Your task to perform on an android device: open app "Walmart Shopping & Grocery" (install if not already installed) Image 0: 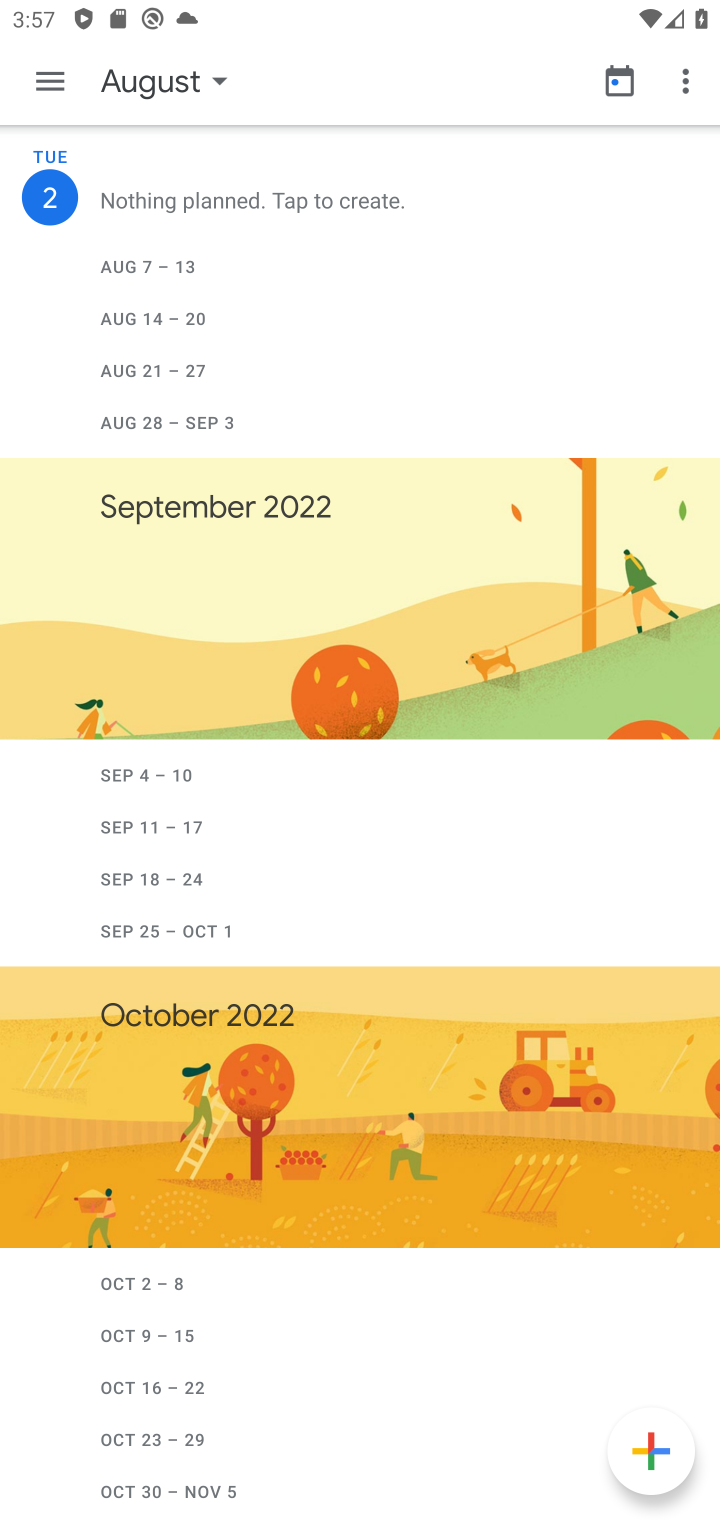
Step 0: press home button
Your task to perform on an android device: open app "Walmart Shopping & Grocery" (install if not already installed) Image 1: 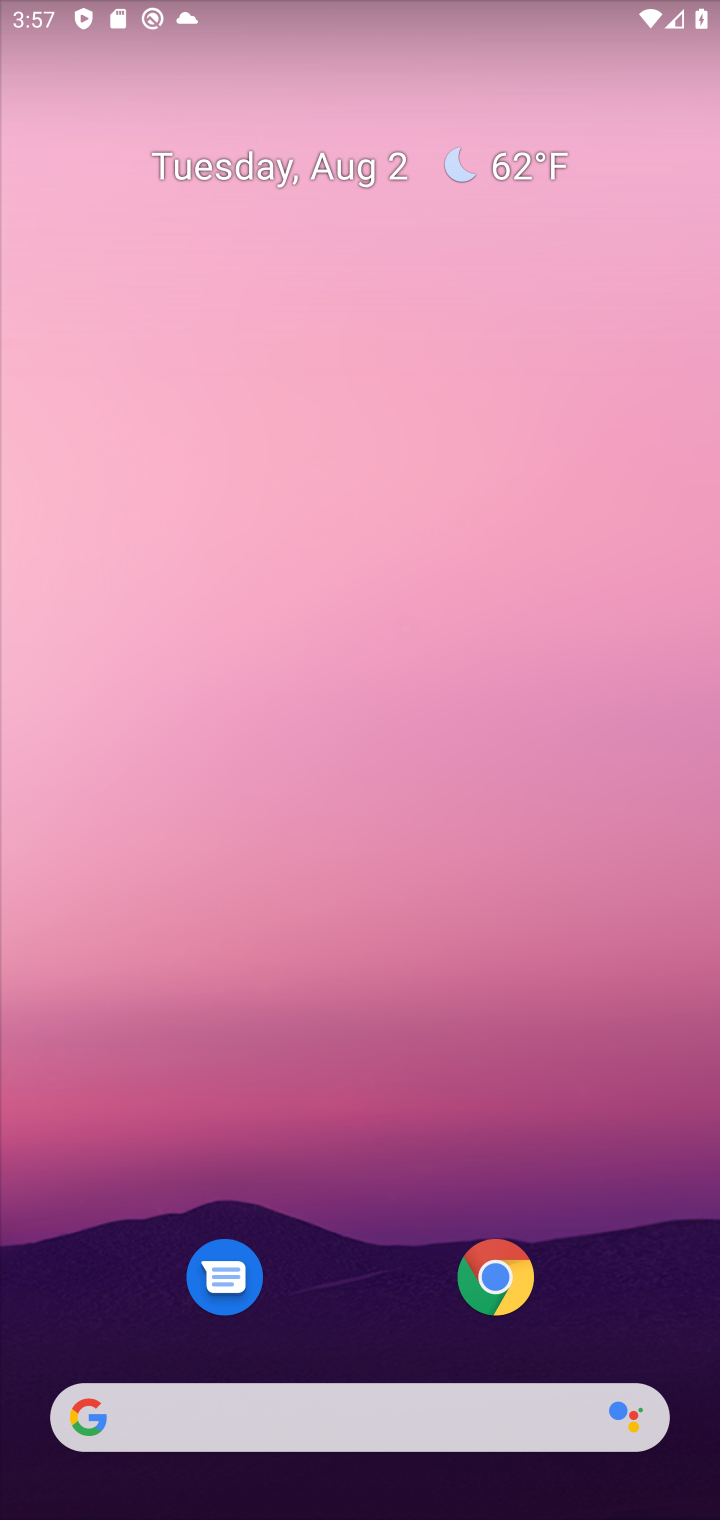
Step 1: drag from (508, 926) to (537, 72)
Your task to perform on an android device: open app "Walmart Shopping & Grocery" (install if not already installed) Image 2: 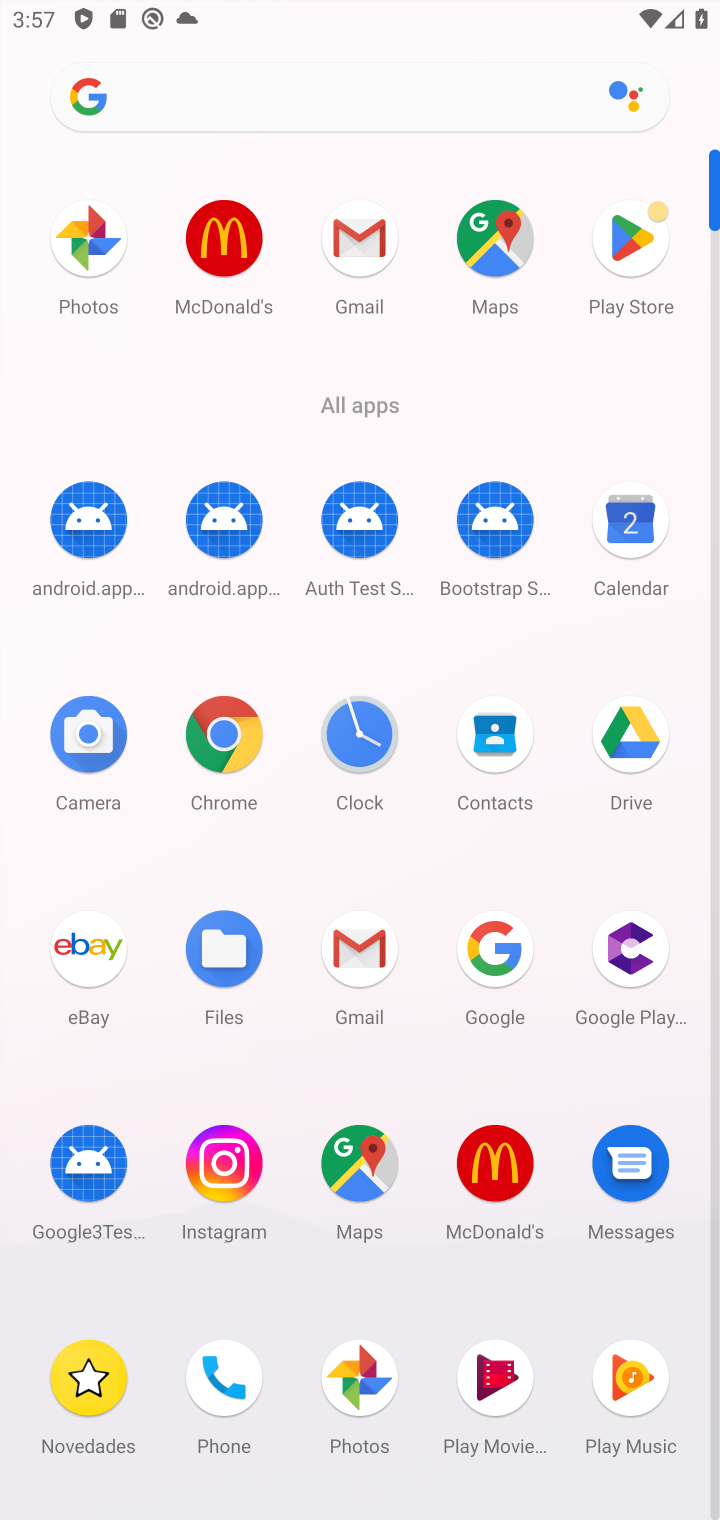
Step 2: click (631, 220)
Your task to perform on an android device: open app "Walmart Shopping & Grocery" (install if not already installed) Image 3: 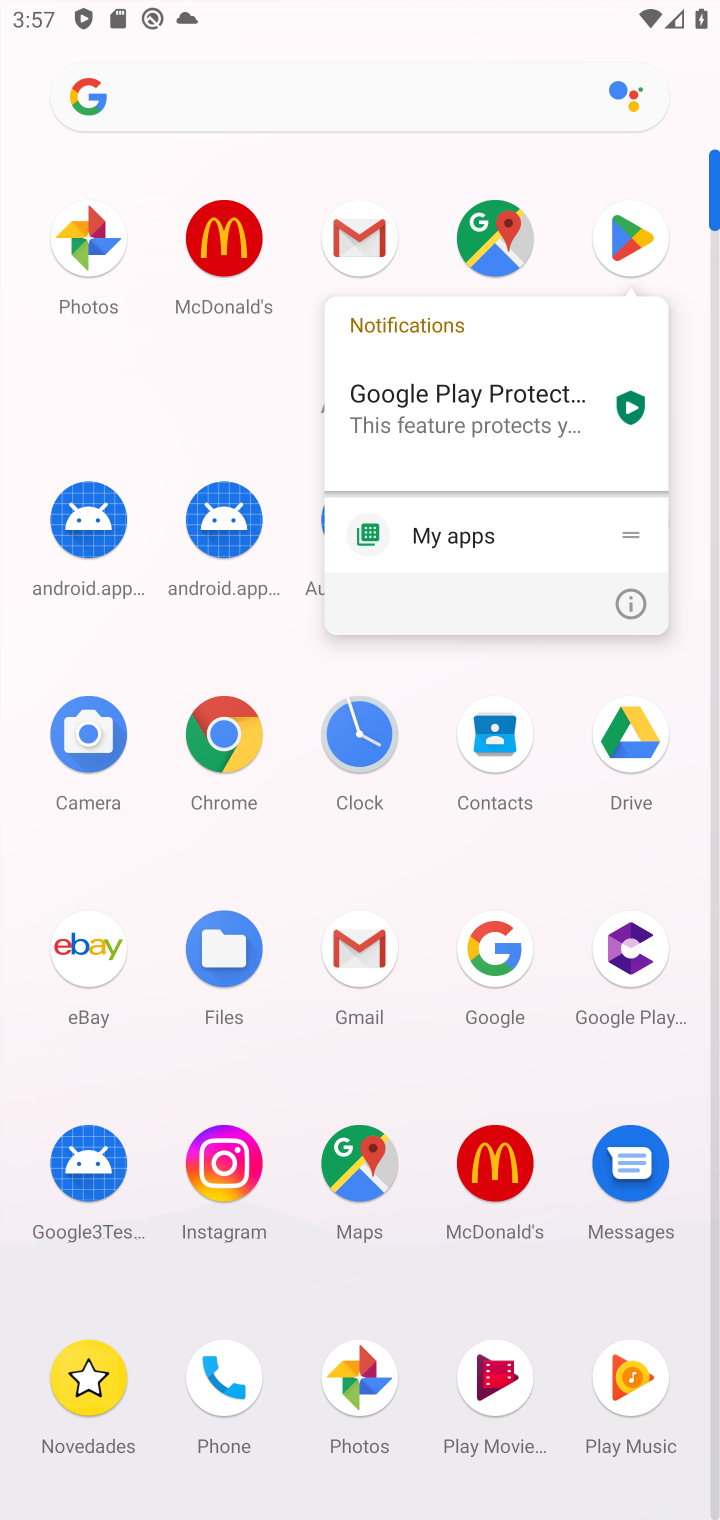
Step 3: click (565, 1262)
Your task to perform on an android device: open app "Walmart Shopping & Grocery" (install if not already installed) Image 4: 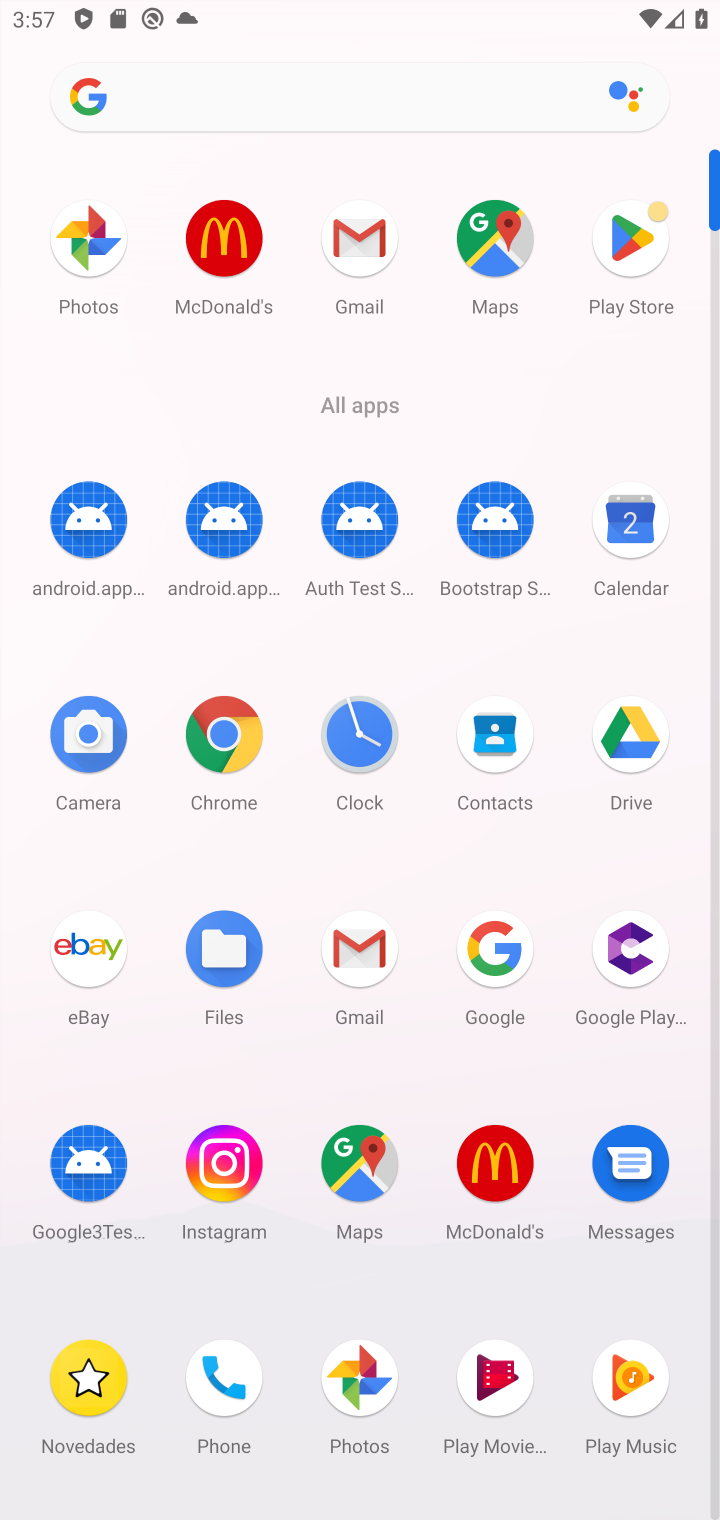
Step 4: drag from (523, 1309) to (474, 338)
Your task to perform on an android device: open app "Walmart Shopping & Grocery" (install if not already installed) Image 5: 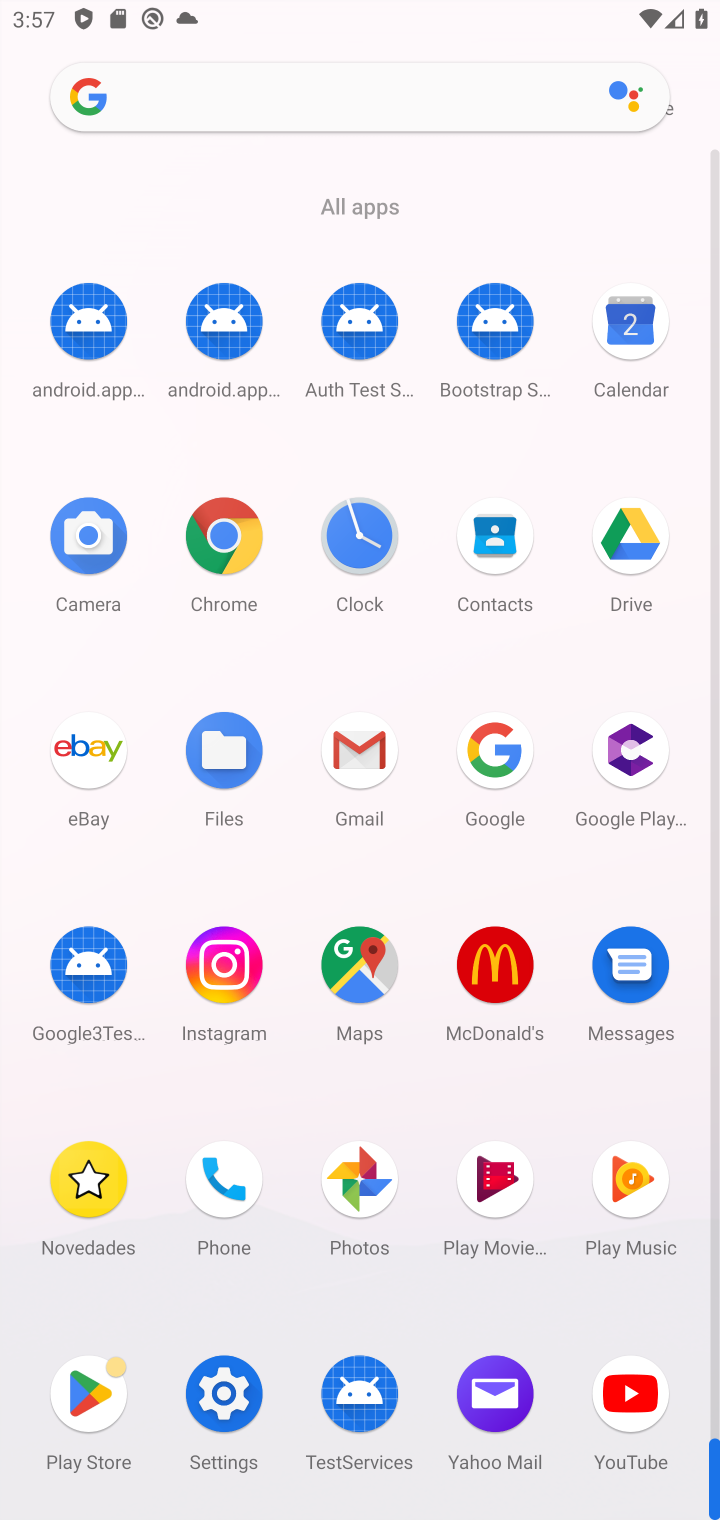
Step 5: click (101, 1391)
Your task to perform on an android device: open app "Walmart Shopping & Grocery" (install if not already installed) Image 6: 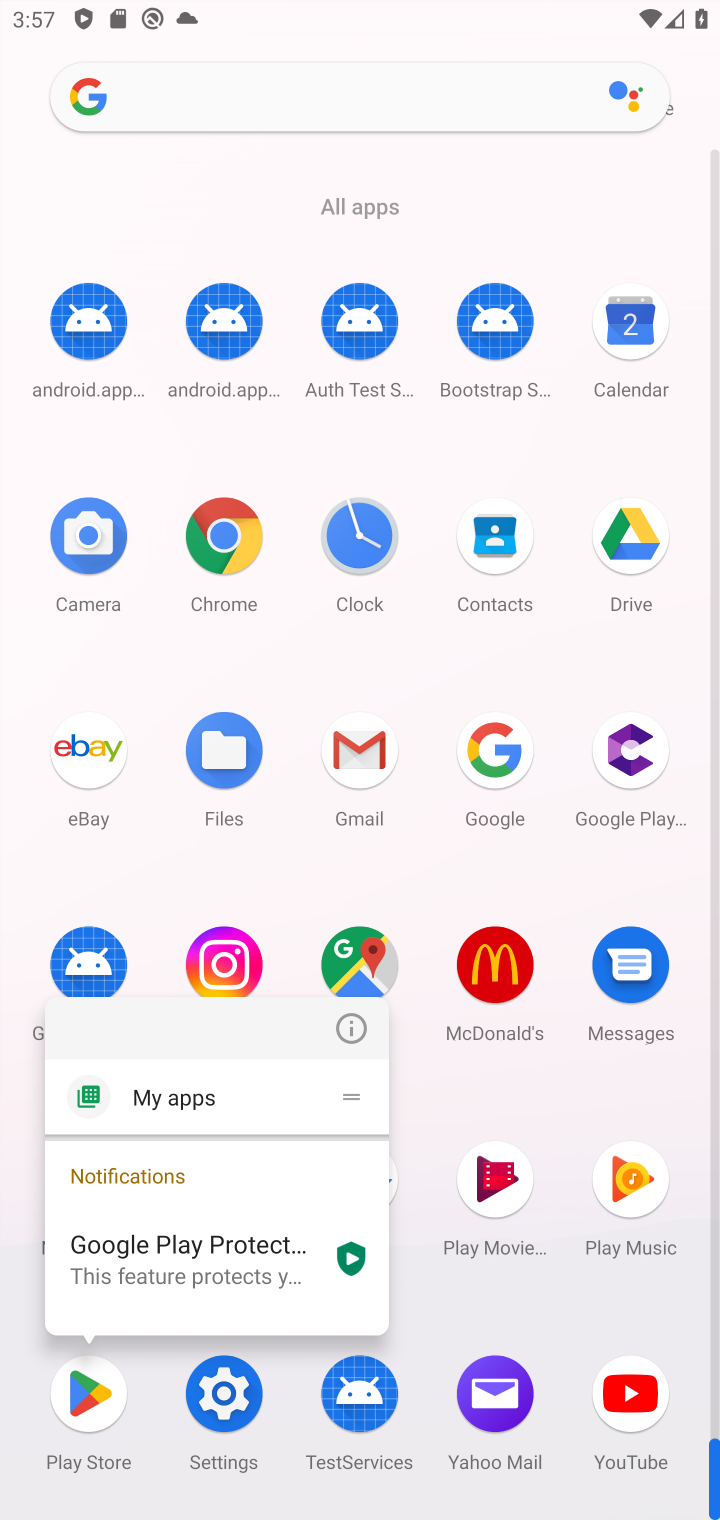
Step 6: click (77, 1395)
Your task to perform on an android device: open app "Walmart Shopping & Grocery" (install if not already installed) Image 7: 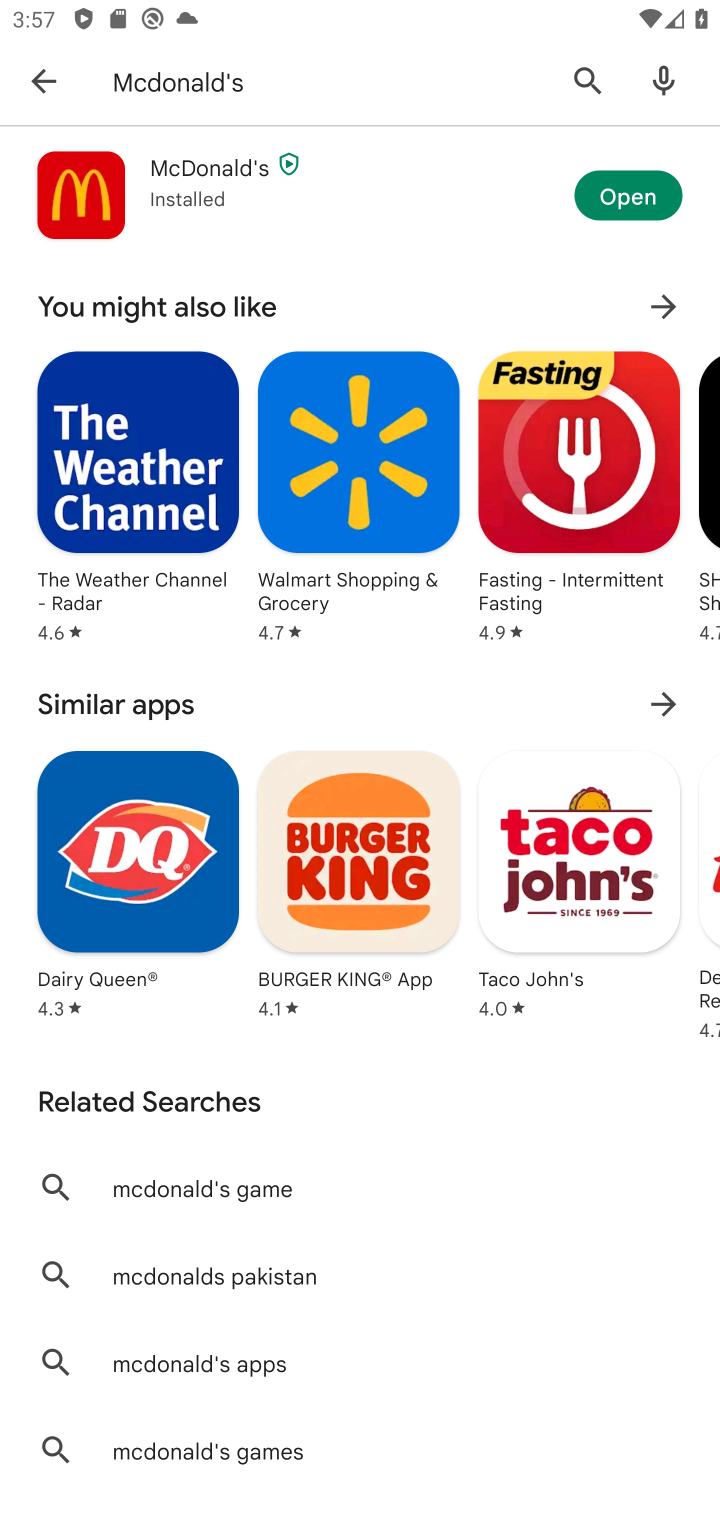
Step 7: click (328, 73)
Your task to perform on an android device: open app "Walmart Shopping & Grocery" (install if not already installed) Image 8: 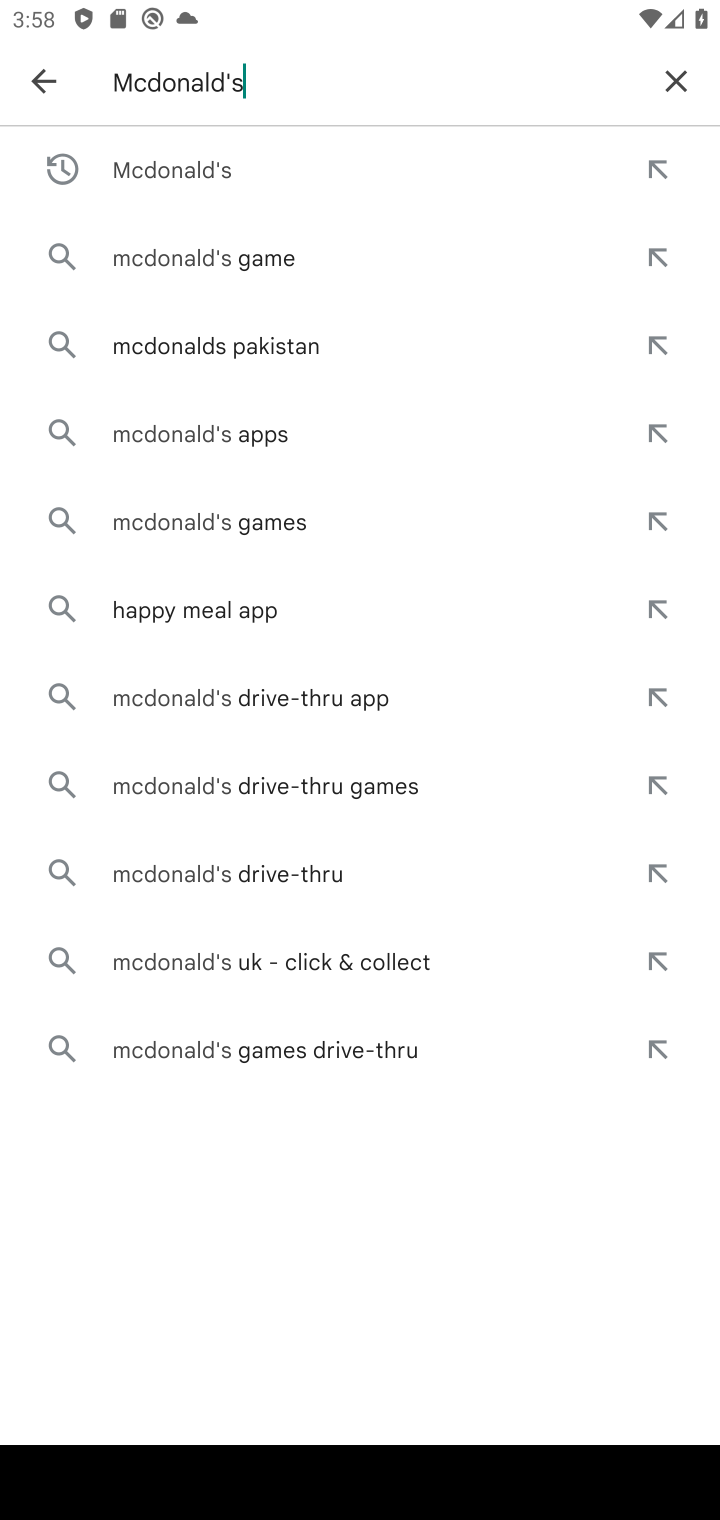
Step 8: click (665, 80)
Your task to perform on an android device: open app "Walmart Shopping & Grocery" (install if not already installed) Image 9: 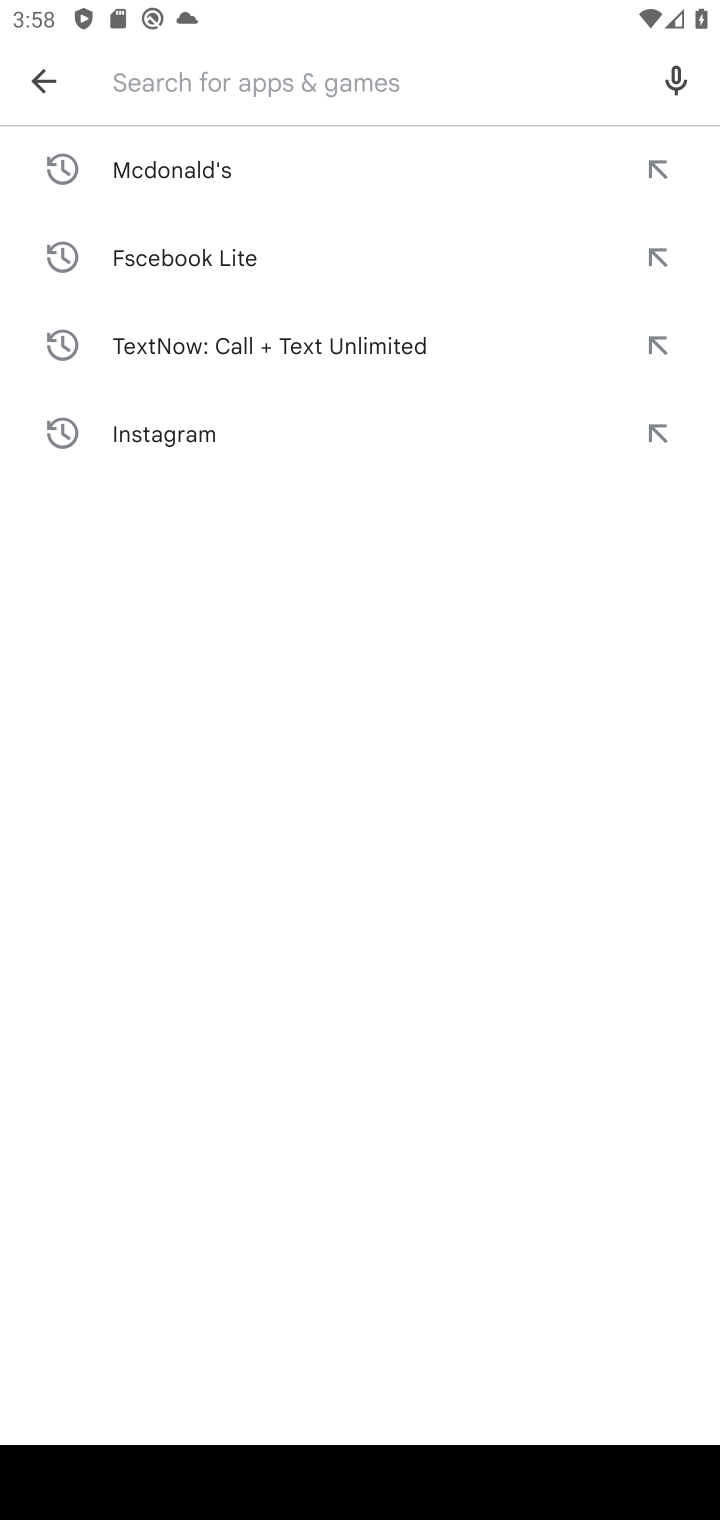
Step 9: type "Walmart Shopping & Grocery"
Your task to perform on an android device: open app "Walmart Shopping & Grocery" (install if not already installed) Image 10: 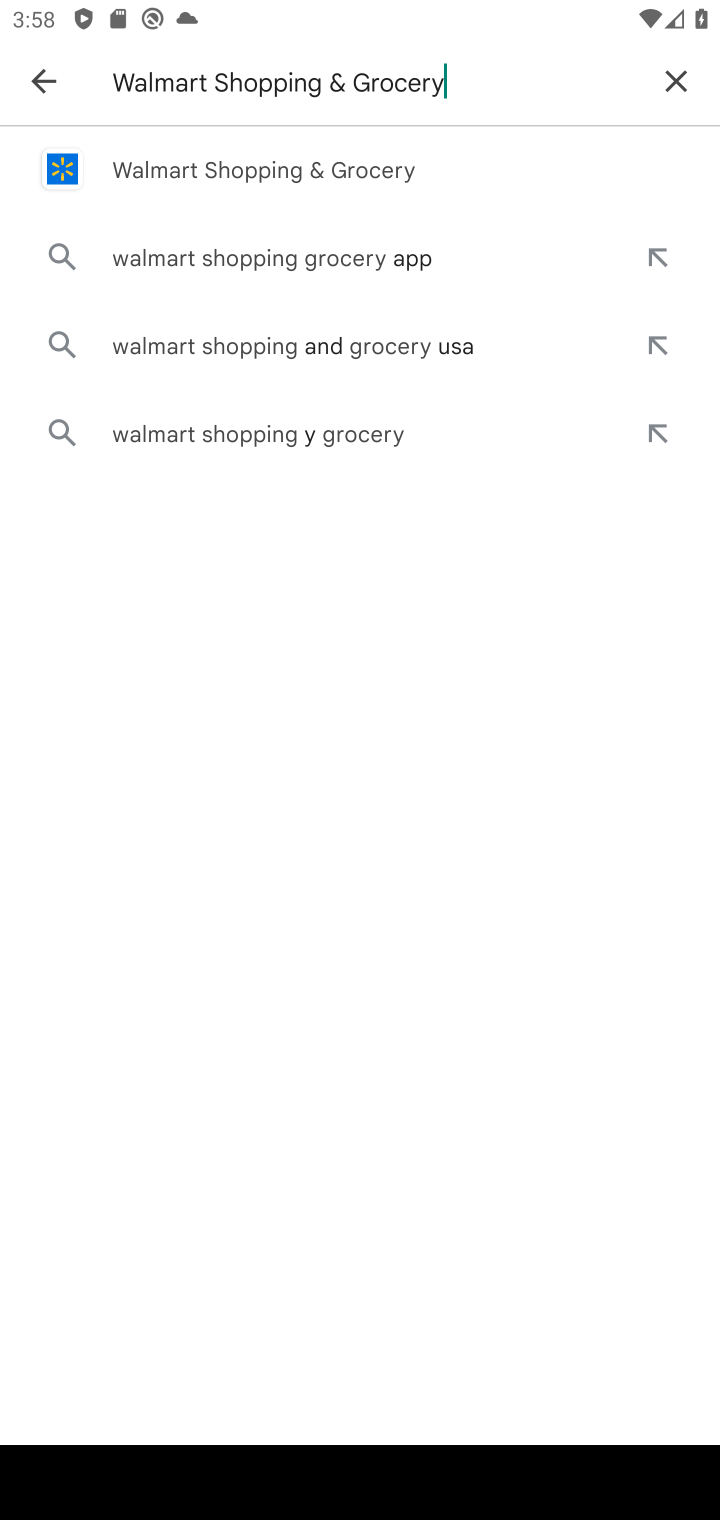
Step 10: click (120, 173)
Your task to perform on an android device: open app "Walmart Shopping & Grocery" (install if not already installed) Image 11: 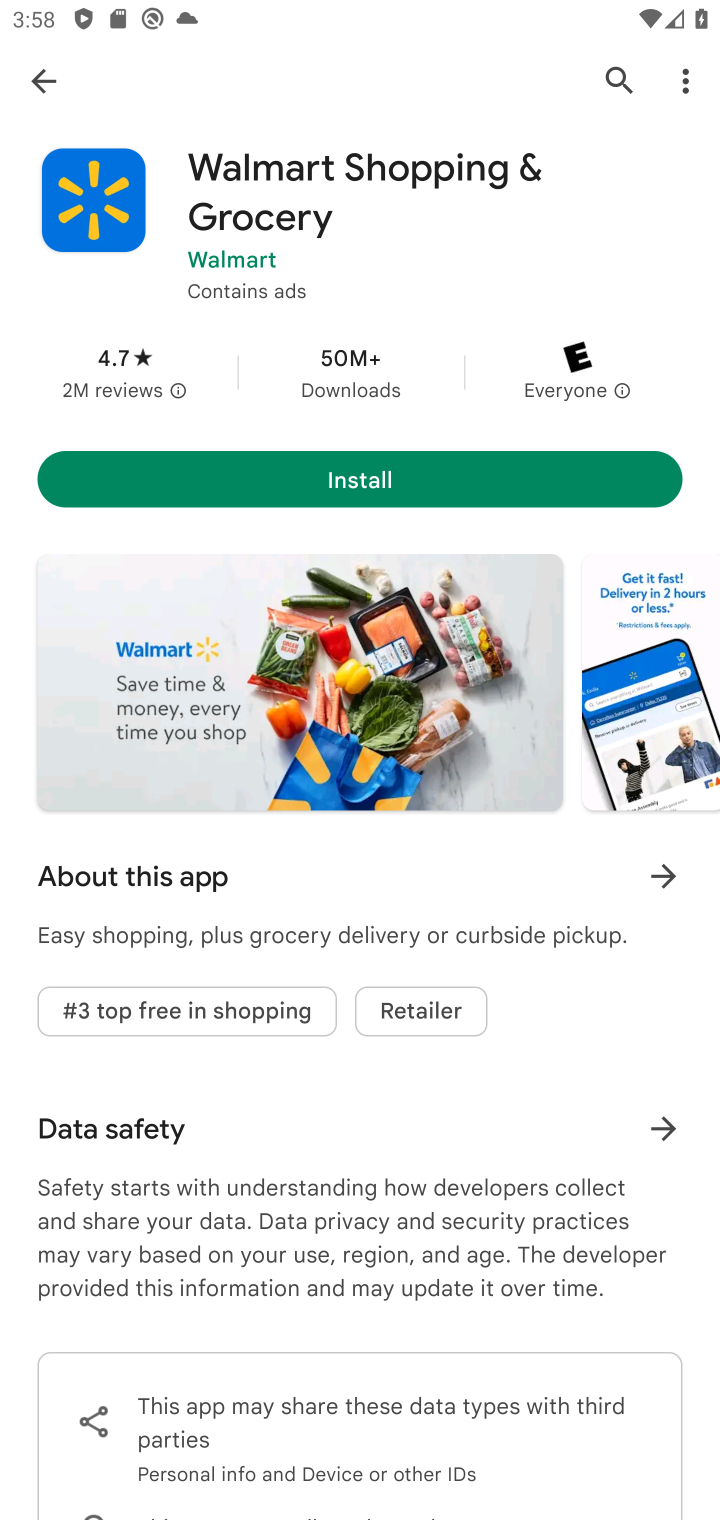
Step 11: click (360, 493)
Your task to perform on an android device: open app "Walmart Shopping & Grocery" (install if not already installed) Image 12: 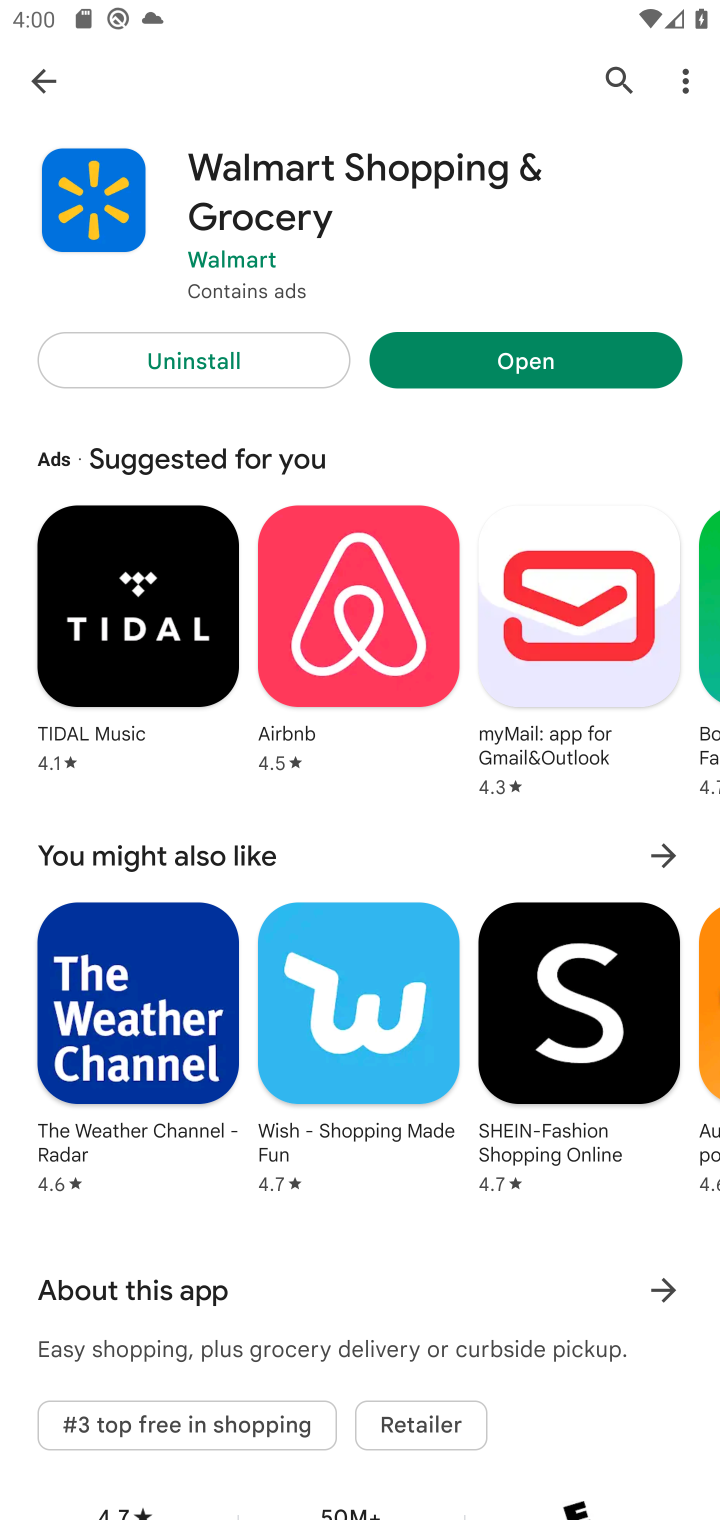
Step 12: click (492, 350)
Your task to perform on an android device: open app "Walmart Shopping & Grocery" (install if not already installed) Image 13: 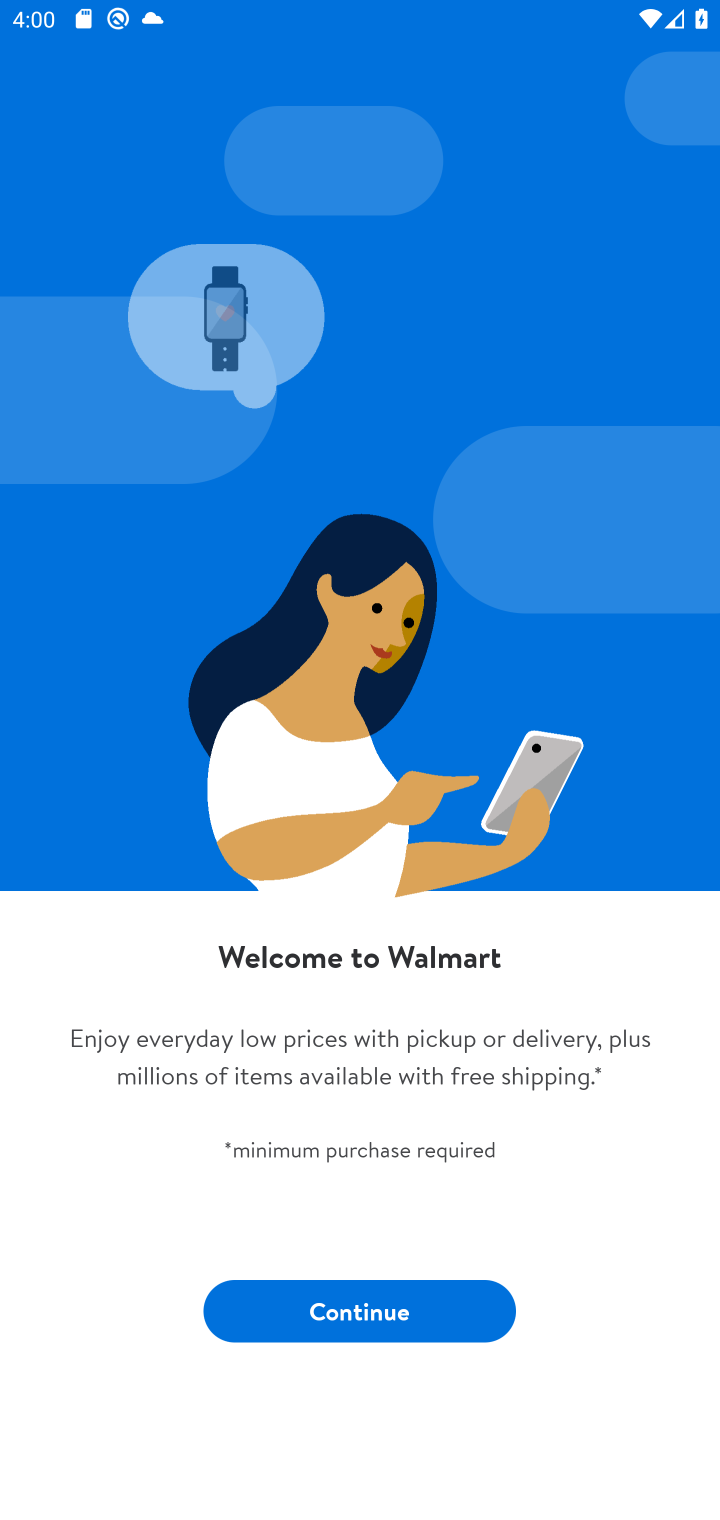
Step 13: task complete